Your task to perform on an android device: turn on priority inbox in the gmail app Image 0: 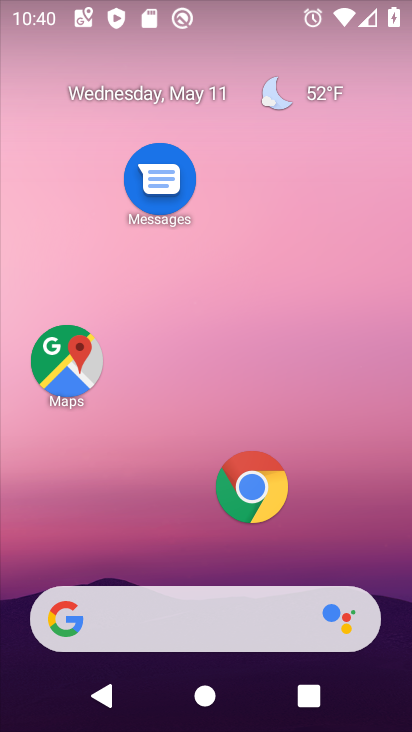
Step 0: drag from (215, 513) to (263, 244)
Your task to perform on an android device: turn on priority inbox in the gmail app Image 1: 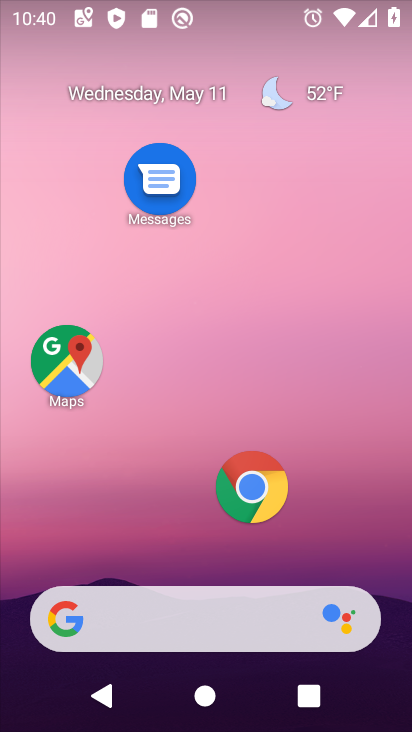
Step 1: drag from (188, 576) to (204, 132)
Your task to perform on an android device: turn on priority inbox in the gmail app Image 2: 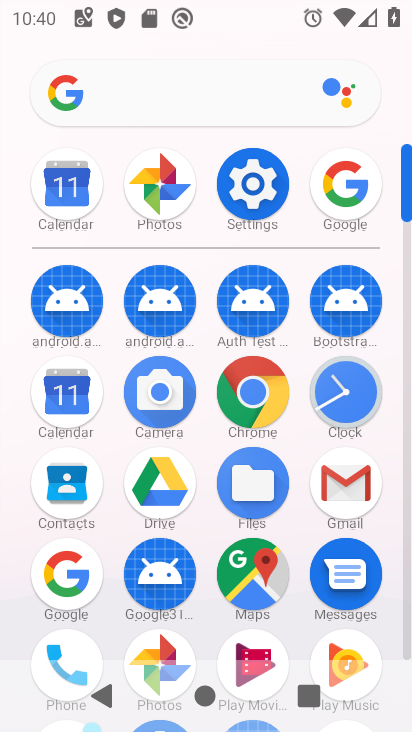
Step 2: click (321, 487)
Your task to perform on an android device: turn on priority inbox in the gmail app Image 3: 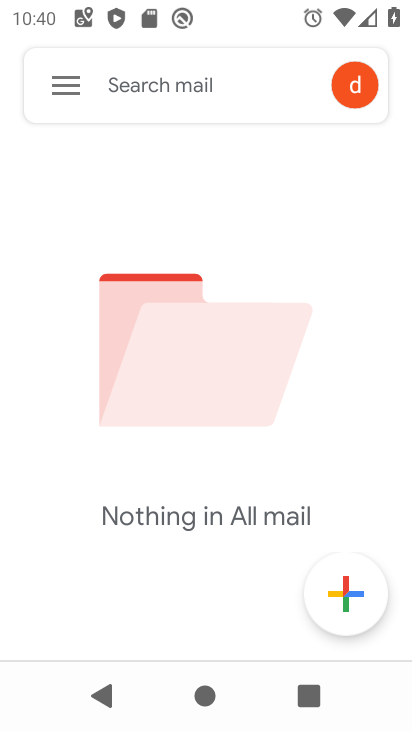
Step 3: click (58, 91)
Your task to perform on an android device: turn on priority inbox in the gmail app Image 4: 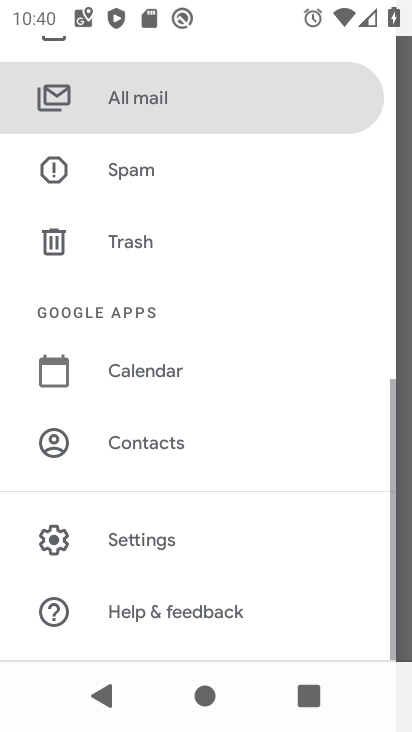
Step 4: click (112, 548)
Your task to perform on an android device: turn on priority inbox in the gmail app Image 5: 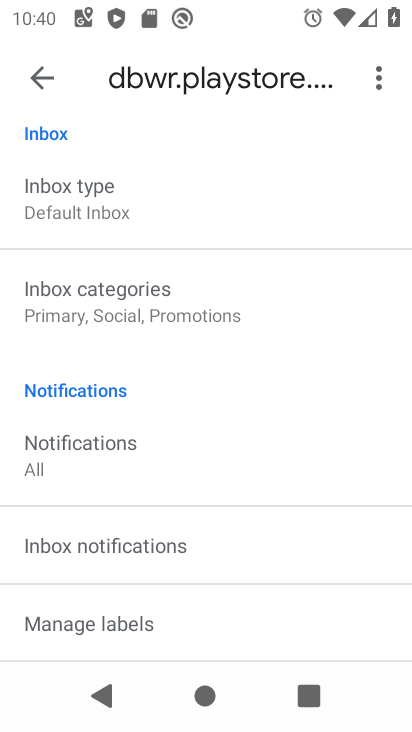
Step 5: click (162, 211)
Your task to perform on an android device: turn on priority inbox in the gmail app Image 6: 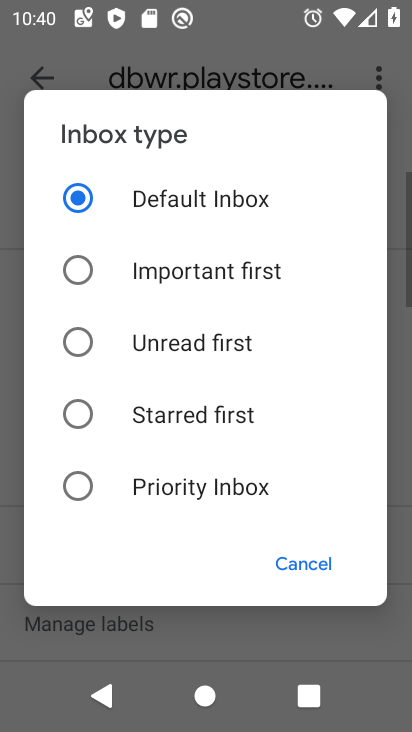
Step 6: click (129, 495)
Your task to perform on an android device: turn on priority inbox in the gmail app Image 7: 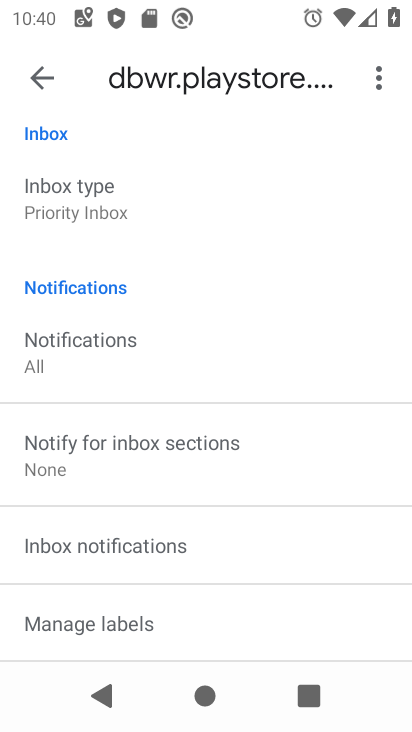
Step 7: task complete